Your task to perform on an android device: Open Chrome and go to the settings page Image 0: 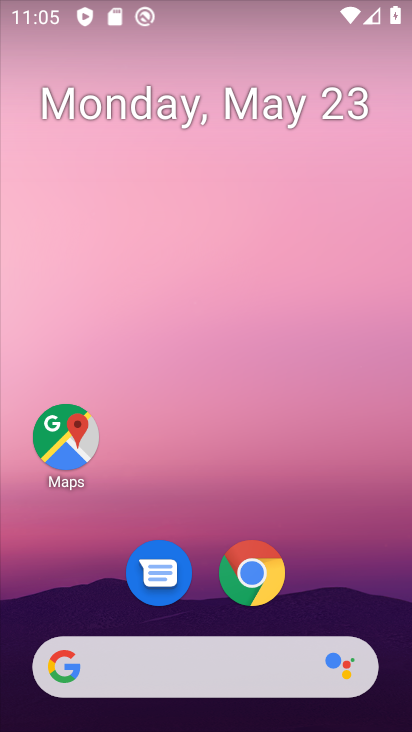
Step 0: drag from (384, 613) to (381, 193)
Your task to perform on an android device: Open Chrome and go to the settings page Image 1: 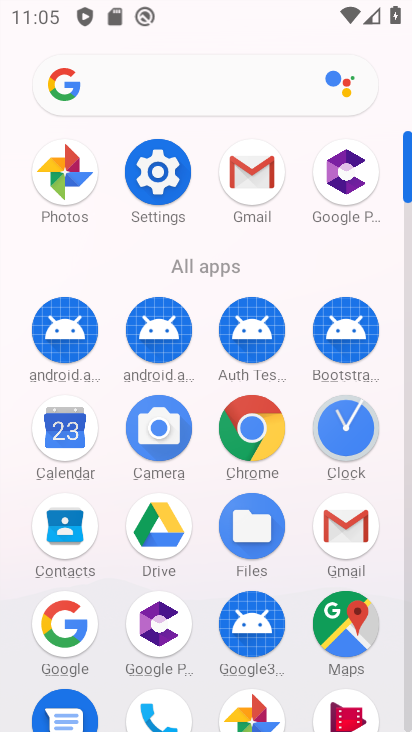
Step 1: click (249, 454)
Your task to perform on an android device: Open Chrome and go to the settings page Image 2: 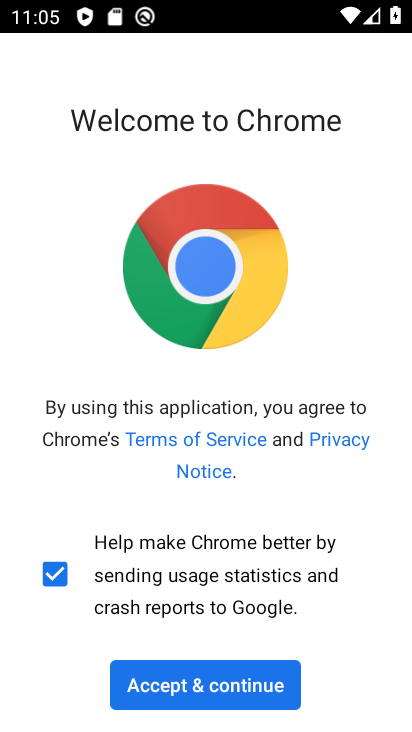
Step 2: click (260, 696)
Your task to perform on an android device: Open Chrome and go to the settings page Image 3: 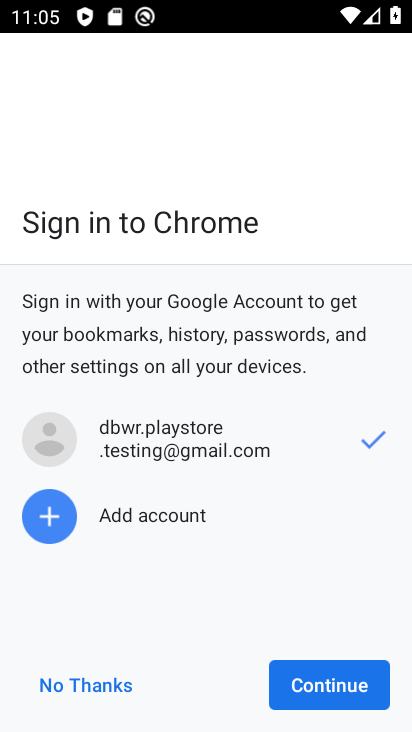
Step 3: click (296, 691)
Your task to perform on an android device: Open Chrome and go to the settings page Image 4: 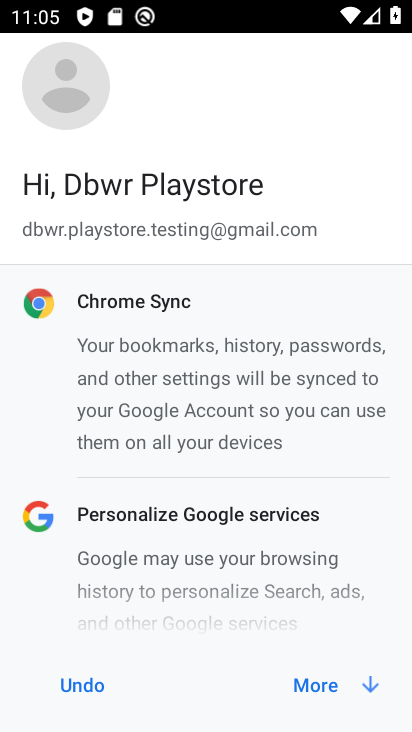
Step 4: click (296, 691)
Your task to perform on an android device: Open Chrome and go to the settings page Image 5: 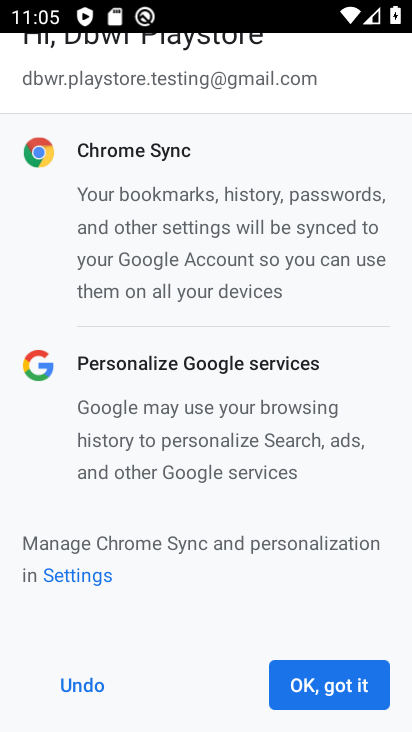
Step 5: click (301, 691)
Your task to perform on an android device: Open Chrome and go to the settings page Image 6: 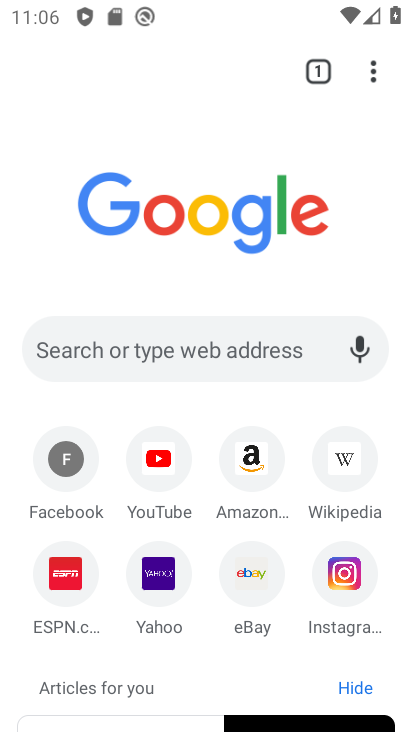
Step 6: click (372, 76)
Your task to perform on an android device: Open Chrome and go to the settings page Image 7: 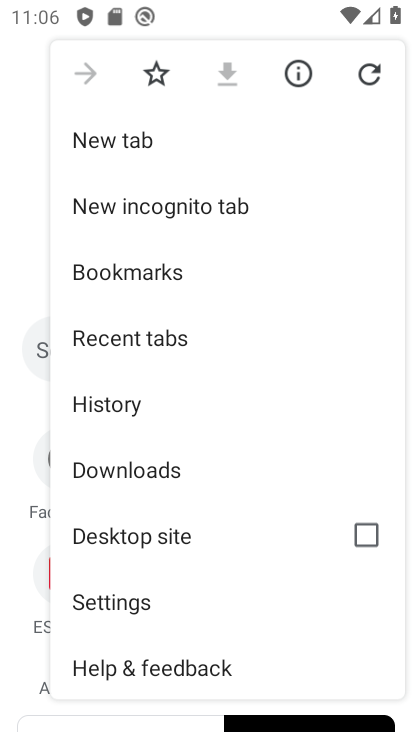
Step 7: drag from (249, 571) to (263, 429)
Your task to perform on an android device: Open Chrome and go to the settings page Image 8: 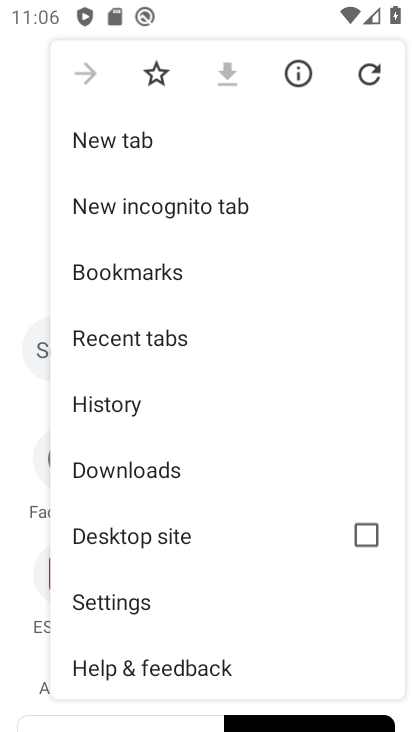
Step 8: click (148, 618)
Your task to perform on an android device: Open Chrome and go to the settings page Image 9: 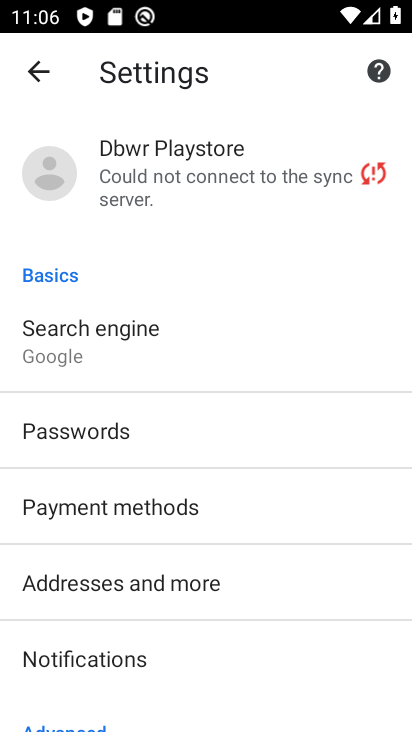
Step 9: task complete